Your task to perform on an android device: Open my contact list Image 0: 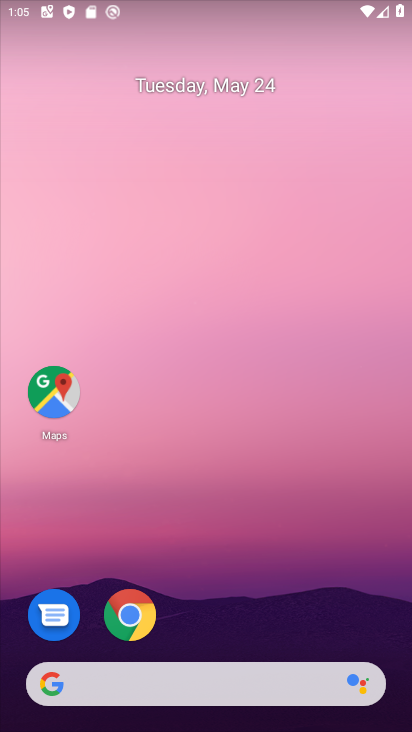
Step 0: press home button
Your task to perform on an android device: Open my contact list Image 1: 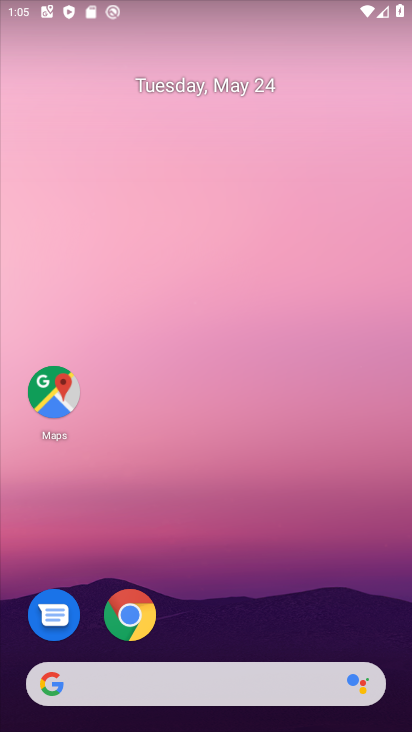
Step 1: drag from (216, 622) to (273, 33)
Your task to perform on an android device: Open my contact list Image 2: 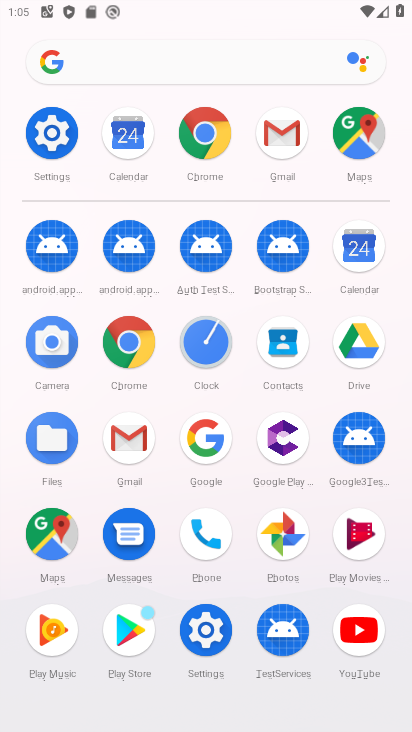
Step 2: click (282, 335)
Your task to perform on an android device: Open my contact list Image 3: 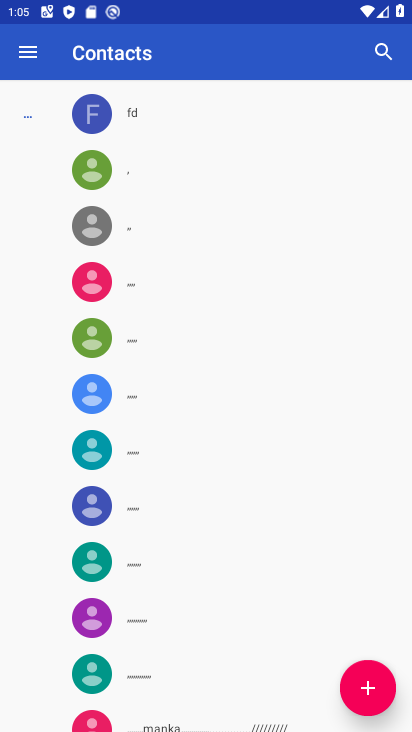
Step 3: task complete